Your task to perform on an android device: Open Amazon Image 0: 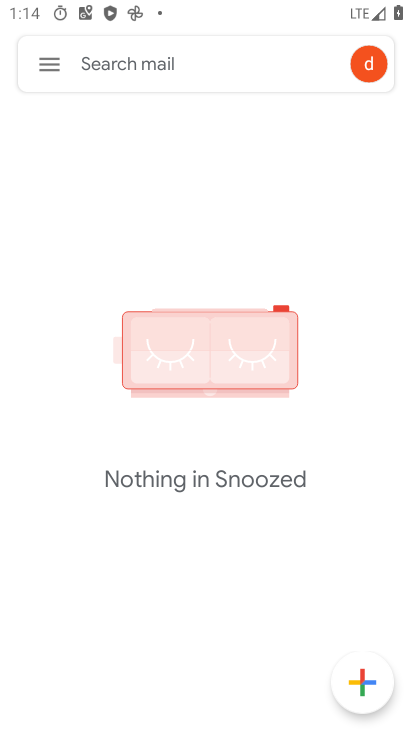
Step 0: press home button
Your task to perform on an android device: Open Amazon Image 1: 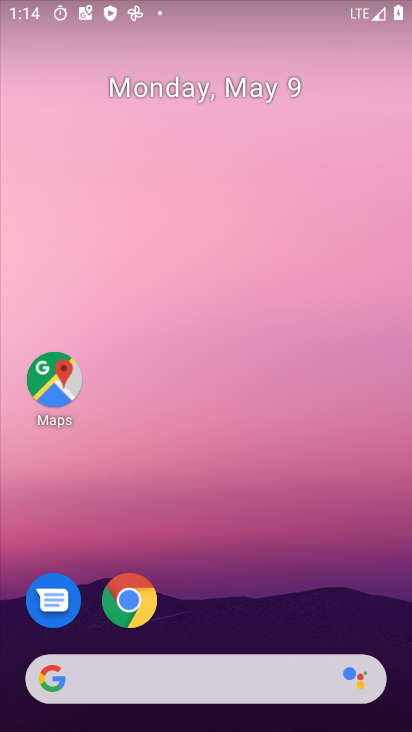
Step 1: drag from (221, 540) to (206, 178)
Your task to perform on an android device: Open Amazon Image 2: 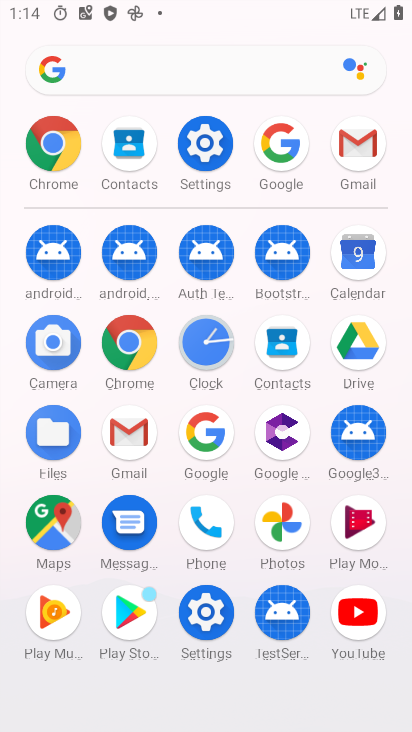
Step 2: click (143, 356)
Your task to perform on an android device: Open Amazon Image 3: 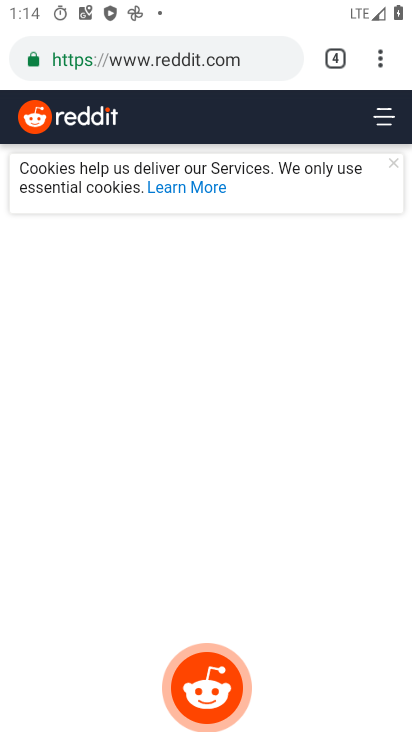
Step 3: click (346, 66)
Your task to perform on an android device: Open Amazon Image 4: 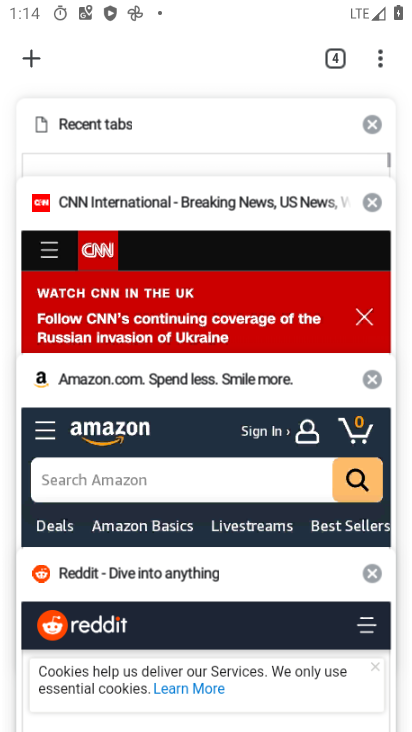
Step 4: click (218, 479)
Your task to perform on an android device: Open Amazon Image 5: 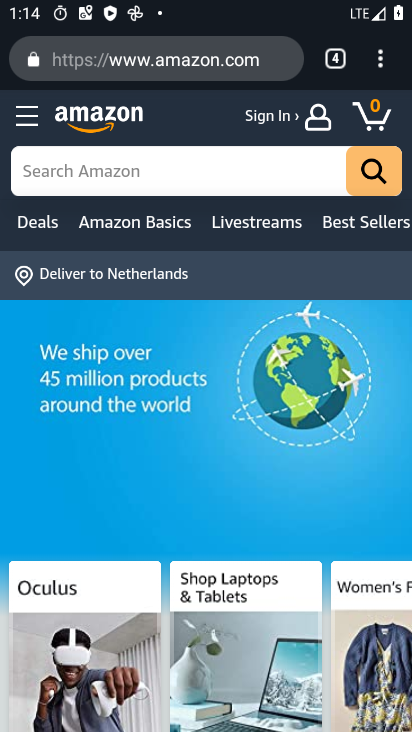
Step 5: task complete